Your task to perform on an android device: set the timer Image 0: 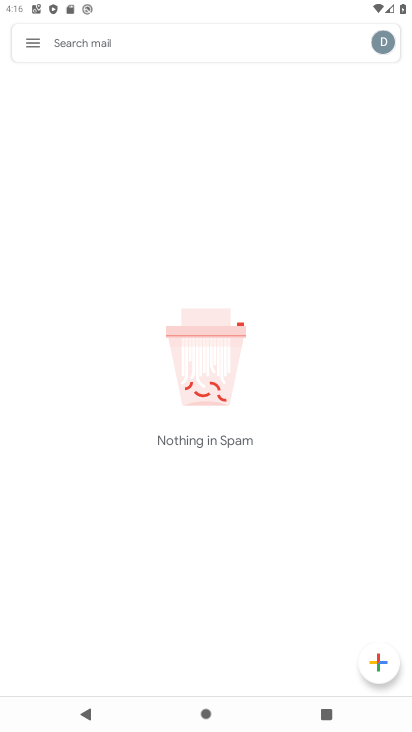
Step 0: press home button
Your task to perform on an android device: set the timer Image 1: 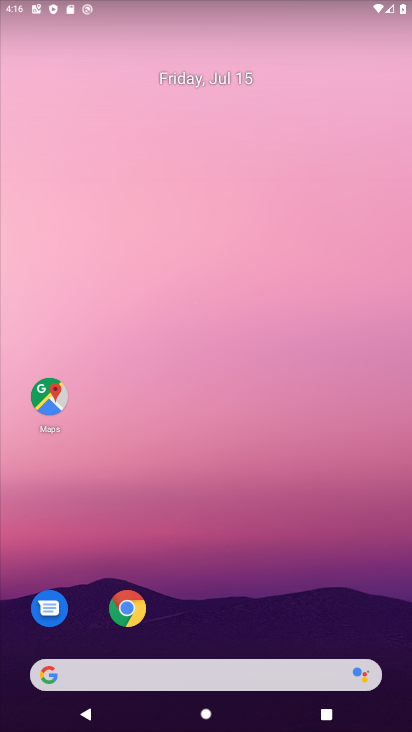
Step 1: drag from (243, 584) to (243, 223)
Your task to perform on an android device: set the timer Image 2: 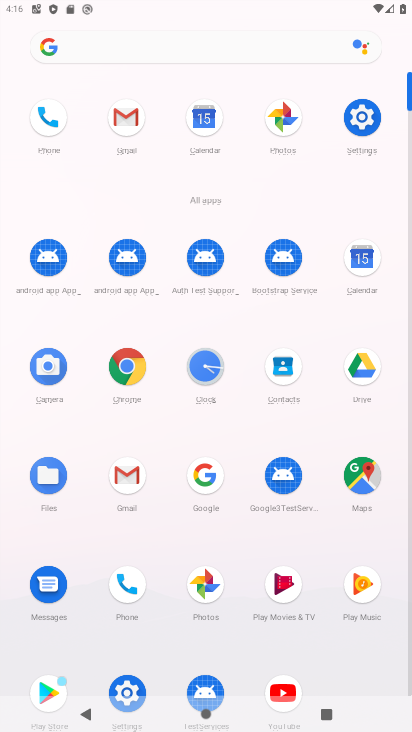
Step 2: click (216, 379)
Your task to perform on an android device: set the timer Image 3: 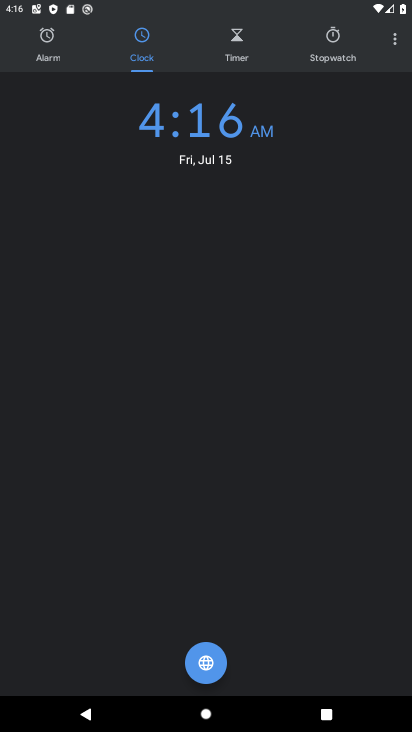
Step 3: click (391, 37)
Your task to perform on an android device: set the timer Image 4: 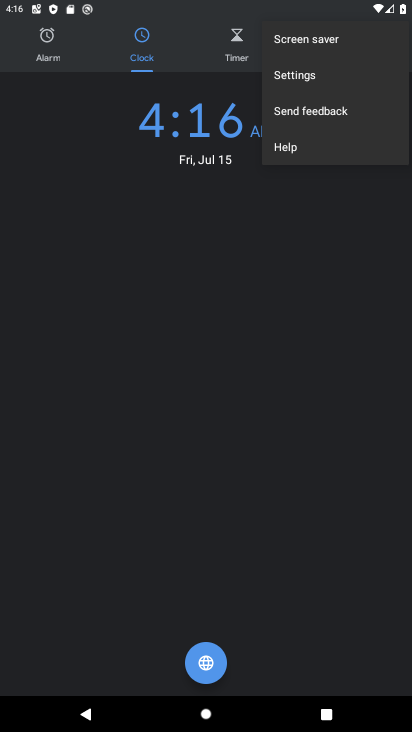
Step 4: click (143, 232)
Your task to perform on an android device: set the timer Image 5: 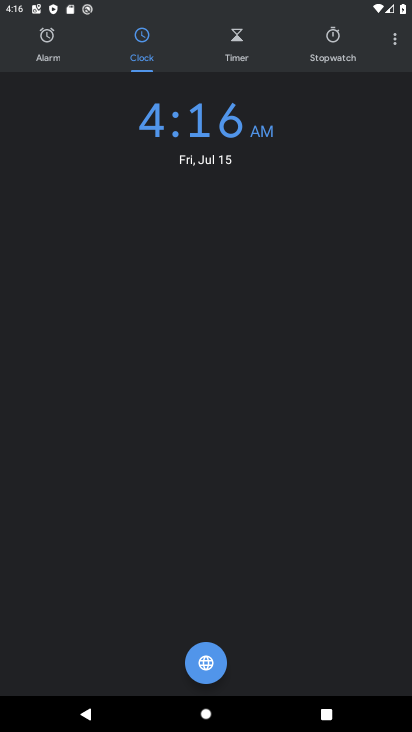
Step 5: click (234, 58)
Your task to perform on an android device: set the timer Image 6: 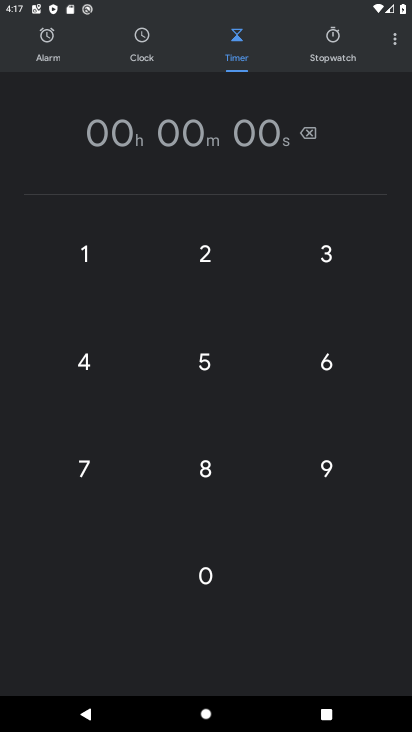
Step 6: click (204, 471)
Your task to perform on an android device: set the timer Image 7: 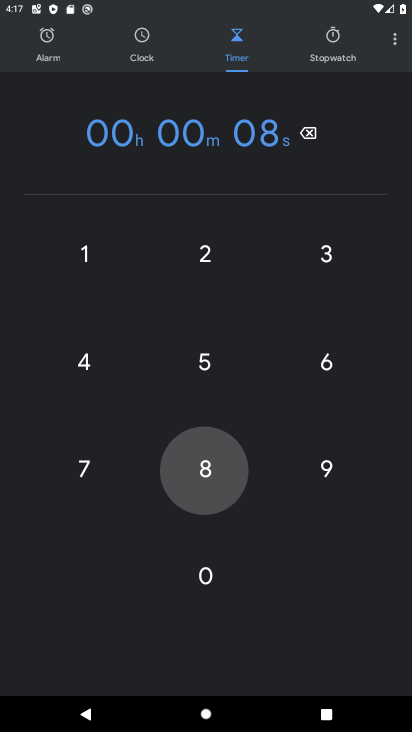
Step 7: click (94, 369)
Your task to perform on an android device: set the timer Image 8: 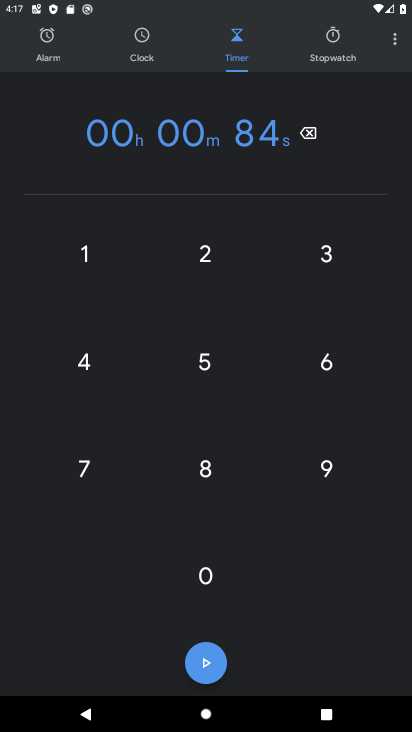
Step 8: click (308, 129)
Your task to perform on an android device: set the timer Image 9: 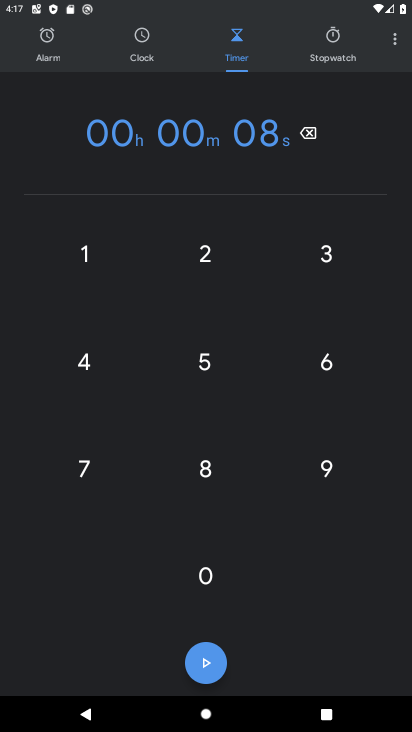
Step 9: click (311, 130)
Your task to perform on an android device: set the timer Image 10: 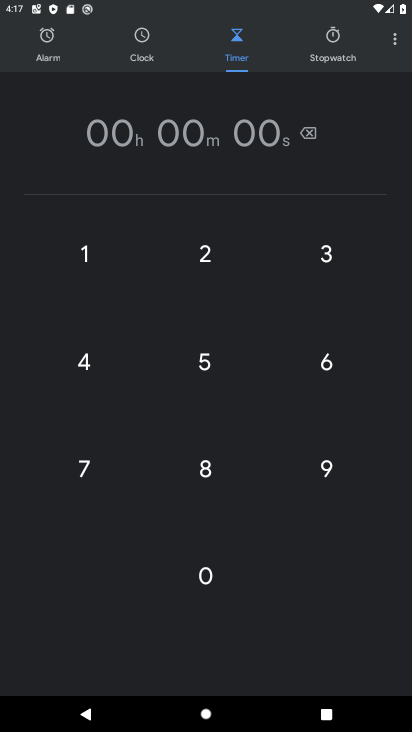
Step 10: click (201, 255)
Your task to perform on an android device: set the timer Image 11: 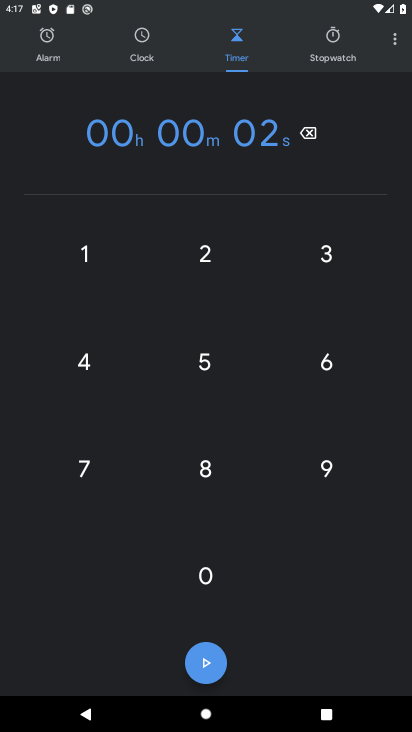
Step 11: click (87, 252)
Your task to perform on an android device: set the timer Image 12: 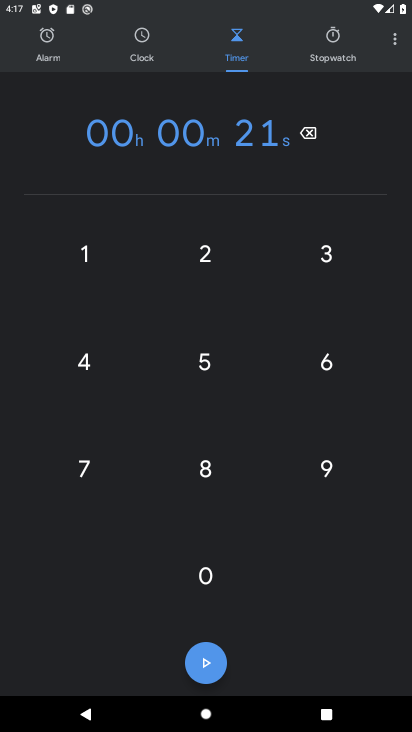
Step 12: click (89, 360)
Your task to perform on an android device: set the timer Image 13: 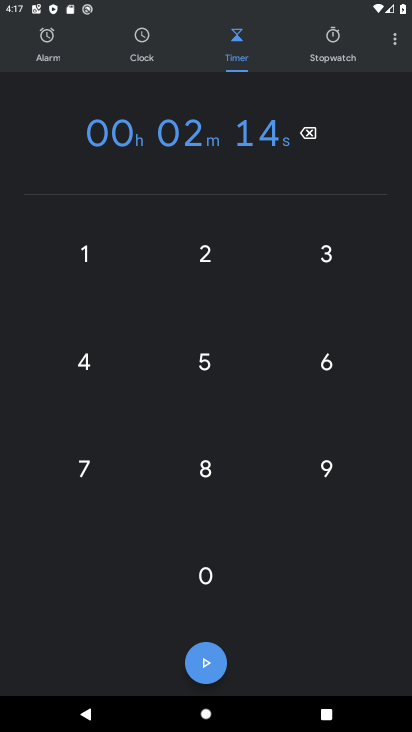
Step 13: click (335, 470)
Your task to perform on an android device: set the timer Image 14: 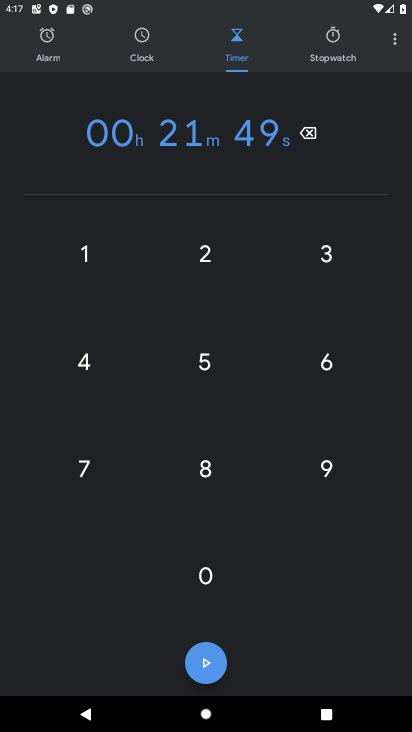
Step 14: click (207, 662)
Your task to perform on an android device: set the timer Image 15: 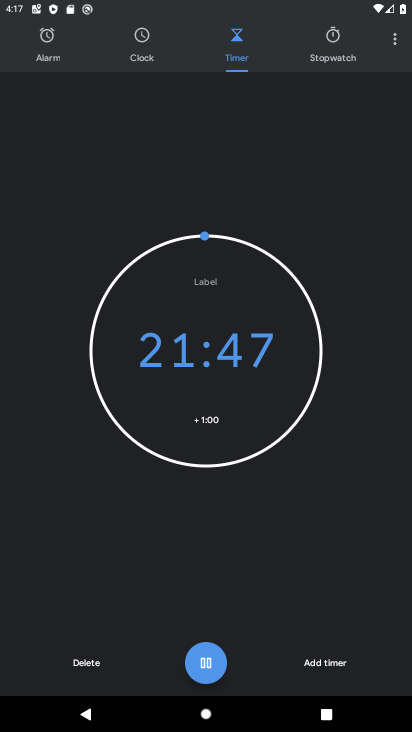
Step 15: task complete